Your task to perform on an android device: Show me recent news Image 0: 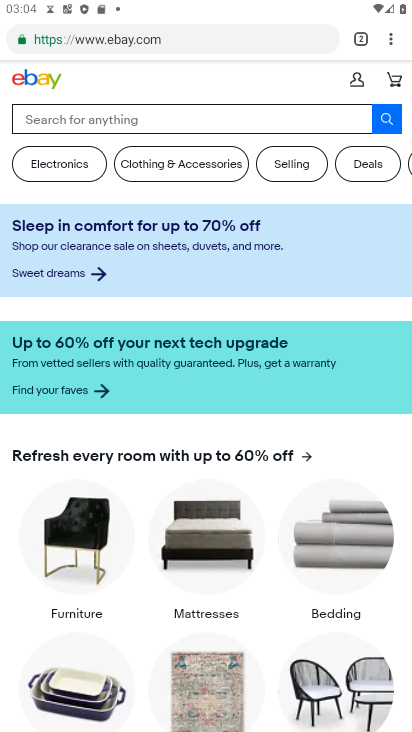
Step 0: drag from (267, 634) to (322, 198)
Your task to perform on an android device: Show me recent news Image 1: 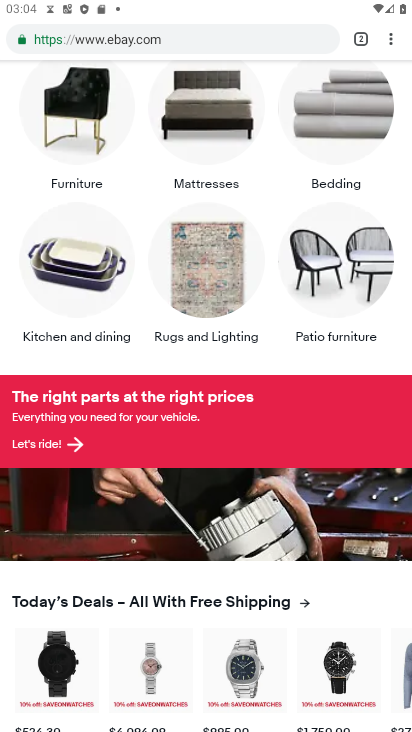
Step 1: press back button
Your task to perform on an android device: Show me recent news Image 2: 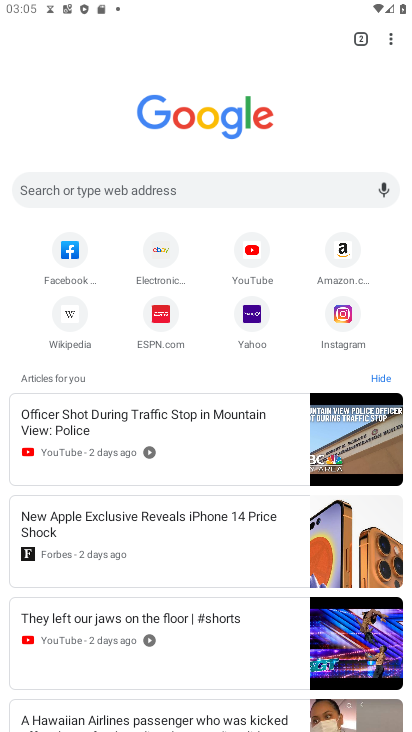
Step 2: drag from (139, 471) to (107, 365)
Your task to perform on an android device: Show me recent news Image 3: 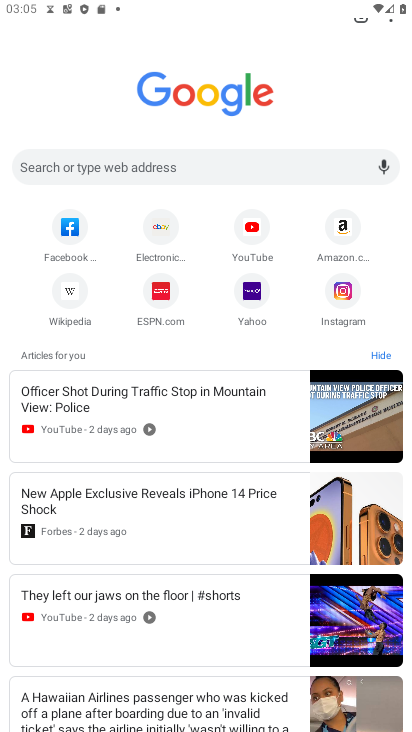
Step 3: click (165, 315)
Your task to perform on an android device: Show me recent news Image 4: 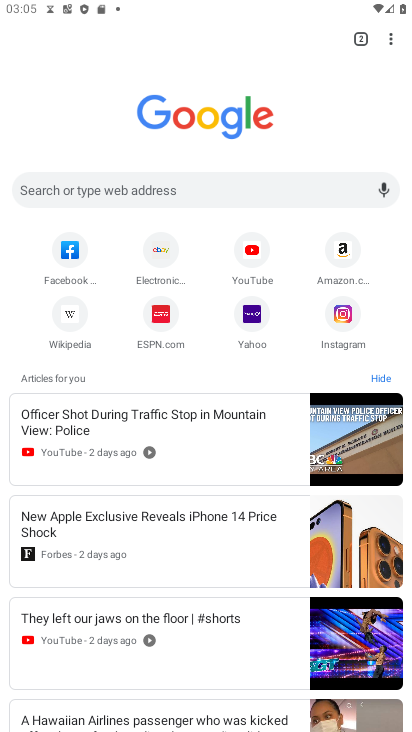
Step 4: task complete